Your task to perform on an android device: Open Yahoo.com Image 0: 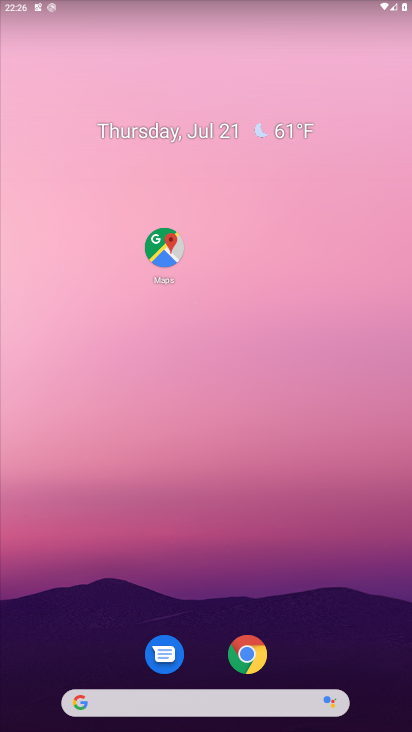
Step 0: click (102, 708)
Your task to perform on an android device: Open Yahoo.com Image 1: 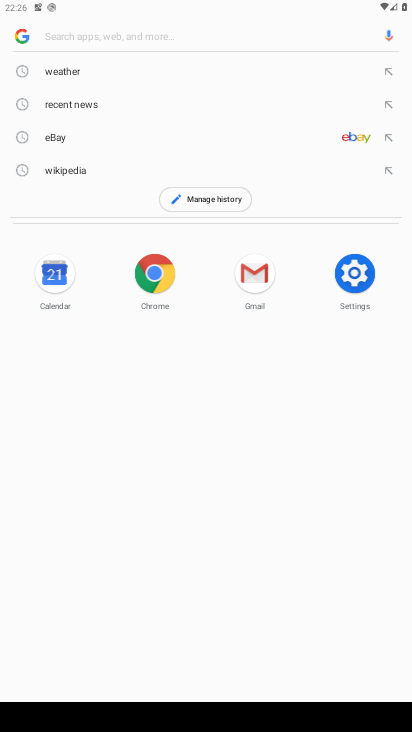
Step 1: type "Yahoo.com"
Your task to perform on an android device: Open Yahoo.com Image 2: 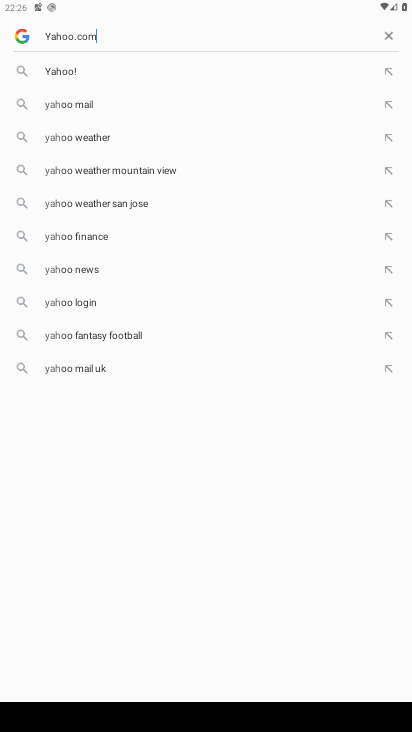
Step 2: type ""
Your task to perform on an android device: Open Yahoo.com Image 3: 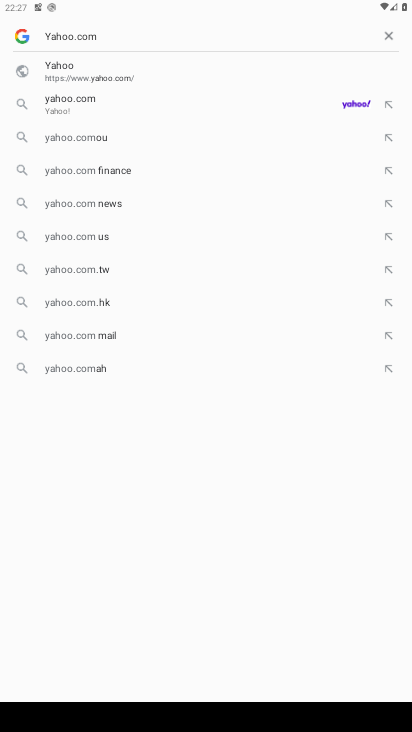
Step 3: click (79, 71)
Your task to perform on an android device: Open Yahoo.com Image 4: 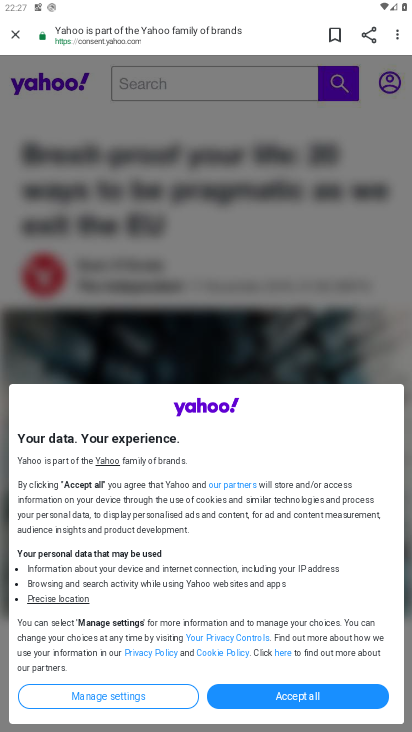
Step 4: task complete